Your task to perform on an android device: Go to location settings Image 0: 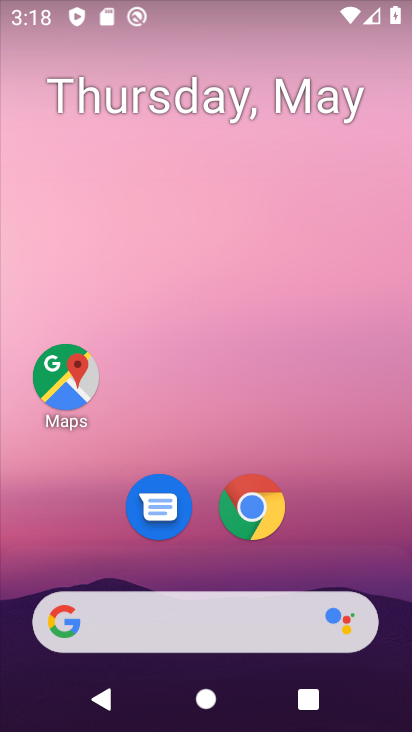
Step 0: drag from (363, 367) to (288, 21)
Your task to perform on an android device: Go to location settings Image 1: 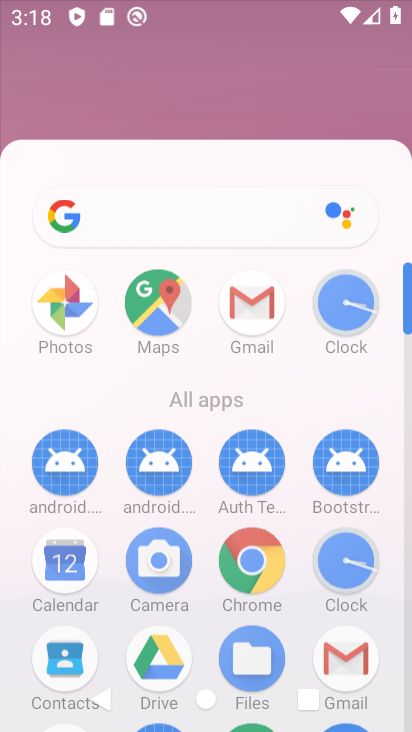
Step 1: drag from (305, 406) to (300, 67)
Your task to perform on an android device: Go to location settings Image 2: 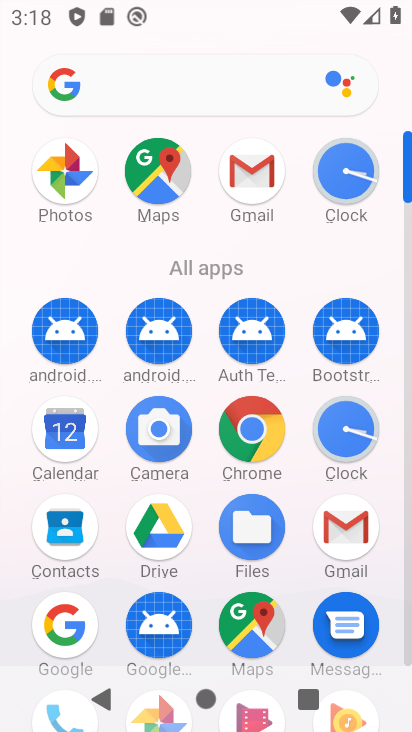
Step 2: drag from (317, 532) to (276, 120)
Your task to perform on an android device: Go to location settings Image 3: 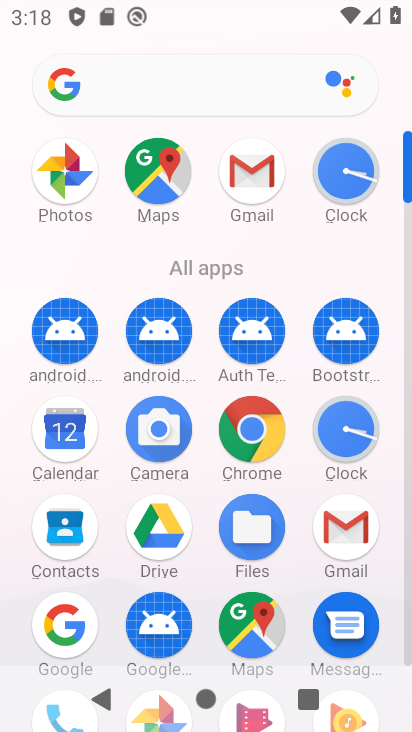
Step 3: drag from (309, 183) to (297, 87)
Your task to perform on an android device: Go to location settings Image 4: 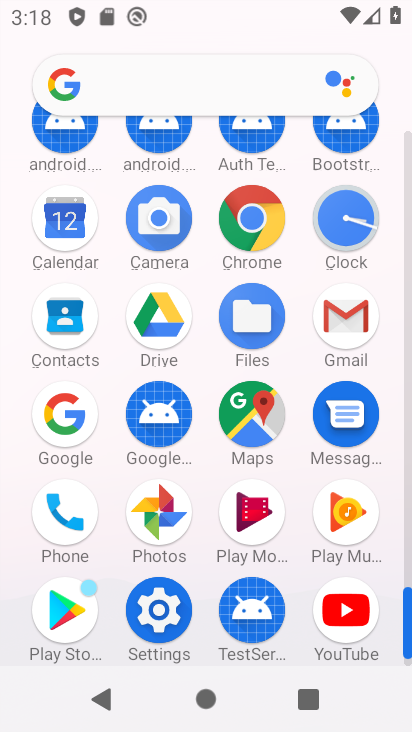
Step 4: click (272, 167)
Your task to perform on an android device: Go to location settings Image 5: 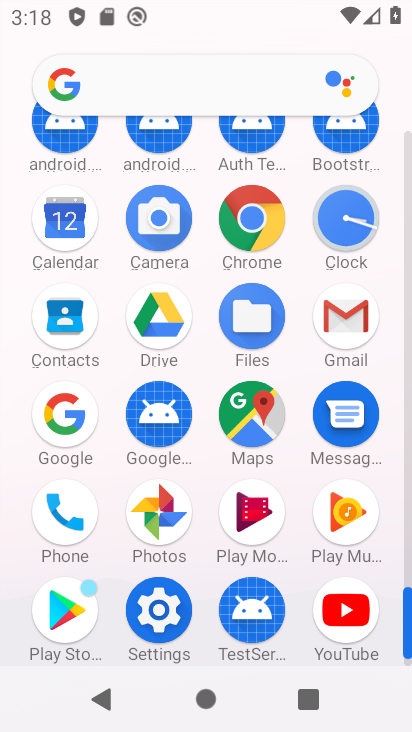
Step 5: click (155, 619)
Your task to perform on an android device: Go to location settings Image 6: 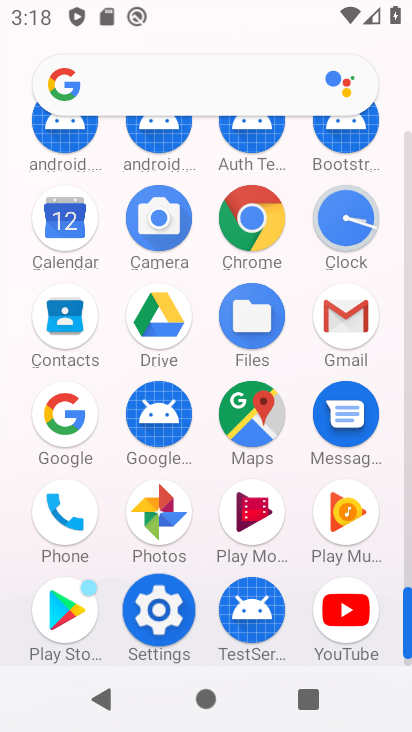
Step 6: click (156, 617)
Your task to perform on an android device: Go to location settings Image 7: 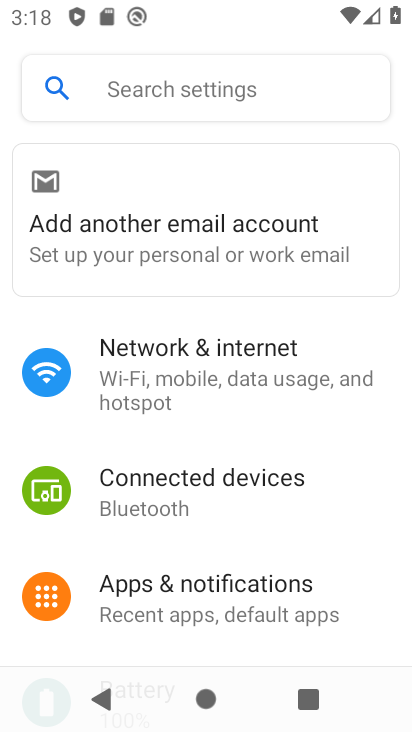
Step 7: drag from (240, 525) to (215, 272)
Your task to perform on an android device: Go to location settings Image 8: 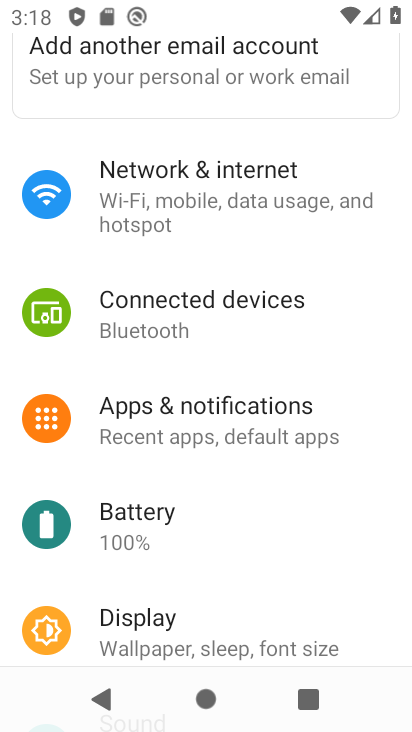
Step 8: drag from (208, 429) to (202, 322)
Your task to perform on an android device: Go to location settings Image 9: 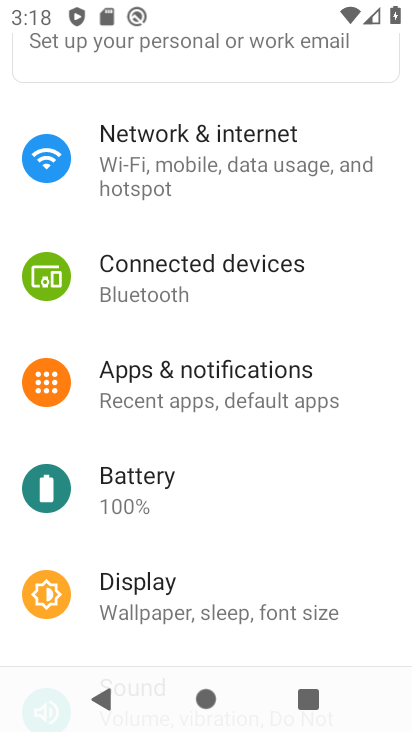
Step 9: drag from (181, 374) to (169, 245)
Your task to perform on an android device: Go to location settings Image 10: 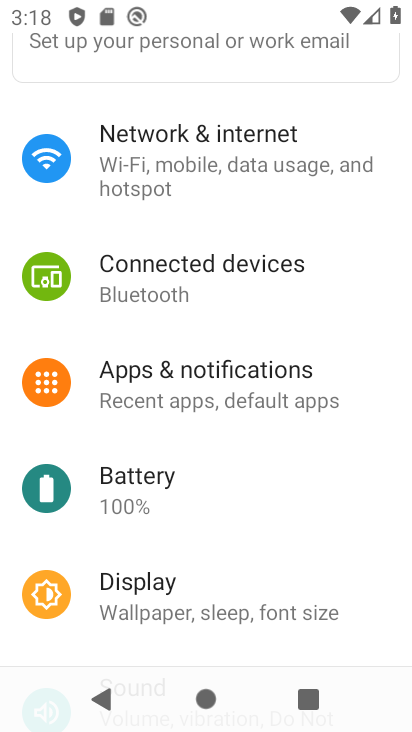
Step 10: drag from (184, 475) to (166, 164)
Your task to perform on an android device: Go to location settings Image 11: 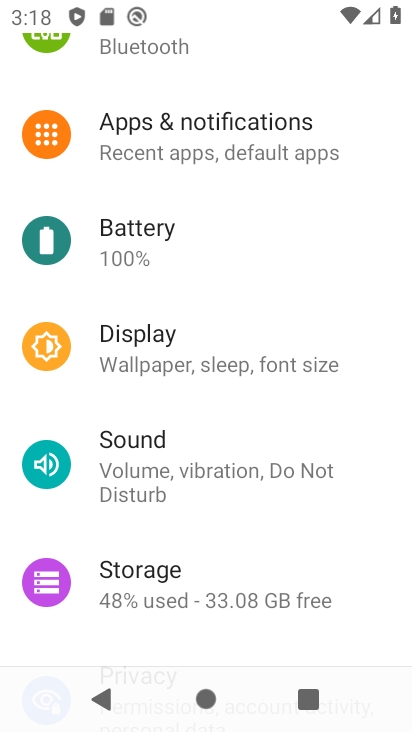
Step 11: drag from (234, 482) to (191, 6)
Your task to perform on an android device: Go to location settings Image 12: 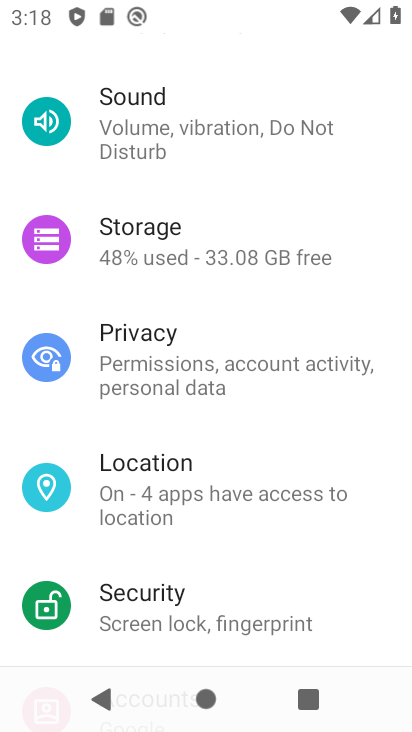
Step 12: click (182, 481)
Your task to perform on an android device: Go to location settings Image 13: 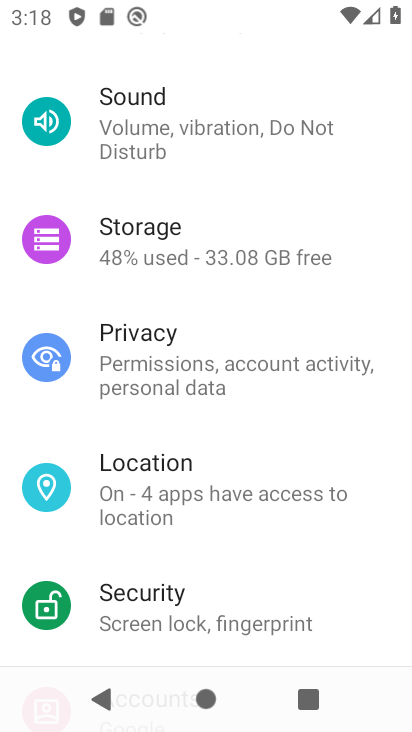
Step 13: click (182, 481)
Your task to perform on an android device: Go to location settings Image 14: 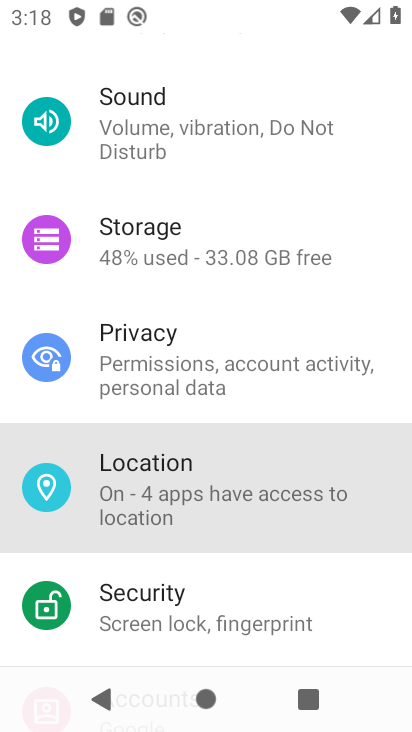
Step 14: click (174, 483)
Your task to perform on an android device: Go to location settings Image 15: 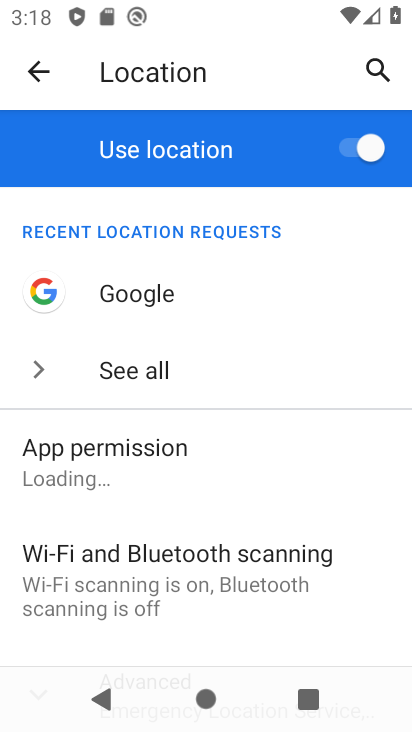
Step 15: task complete